Your task to perform on an android device: Play the last video I watched on Youtube Image 0: 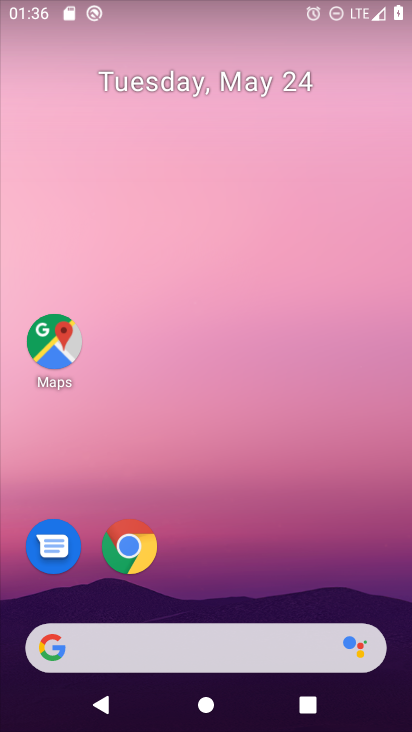
Step 0: drag from (142, 642) to (241, 35)
Your task to perform on an android device: Play the last video I watched on Youtube Image 1: 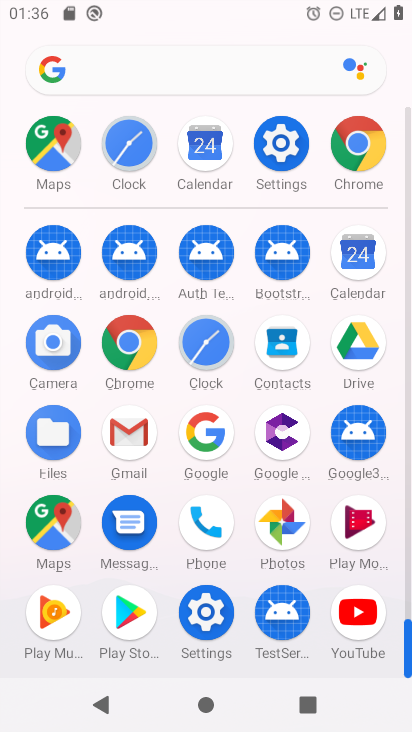
Step 1: click (356, 624)
Your task to perform on an android device: Play the last video I watched on Youtube Image 2: 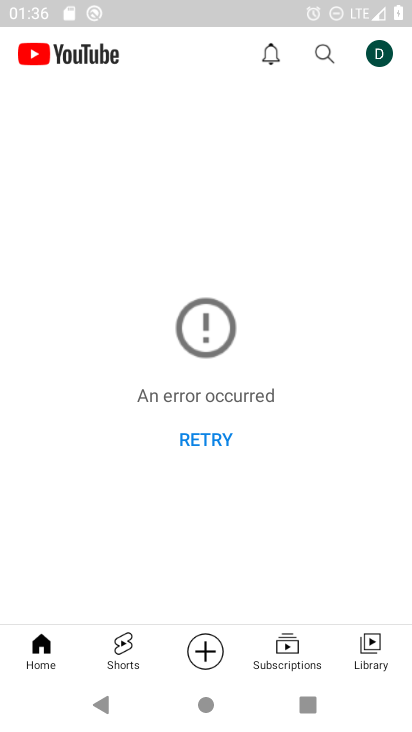
Step 2: click (372, 650)
Your task to perform on an android device: Play the last video I watched on Youtube Image 3: 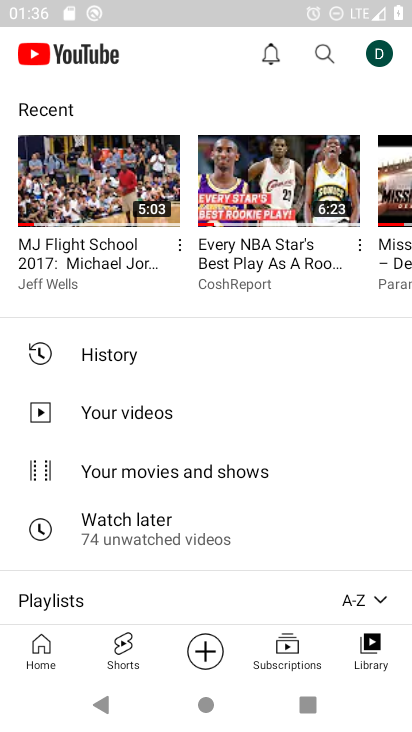
Step 3: click (107, 193)
Your task to perform on an android device: Play the last video I watched on Youtube Image 4: 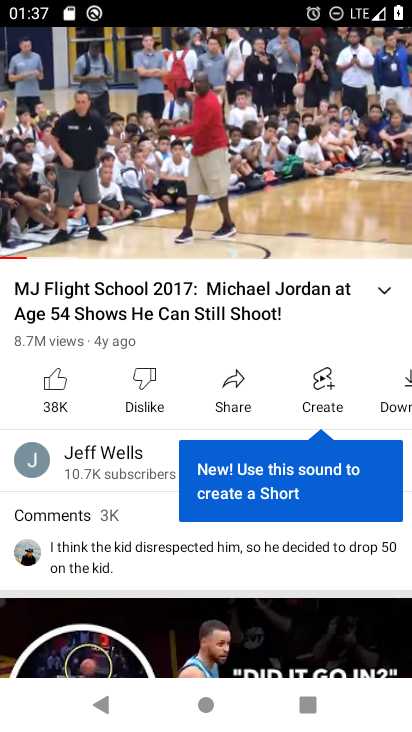
Step 4: task complete